Your task to perform on an android device: What is the recent news? Image 0: 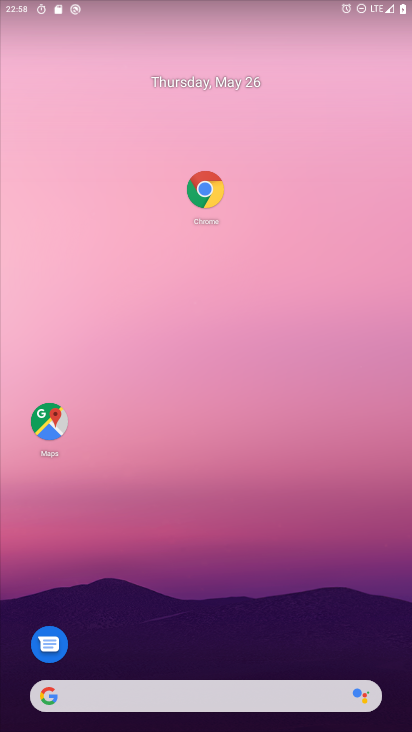
Step 0: click (368, 75)
Your task to perform on an android device: What is the recent news? Image 1: 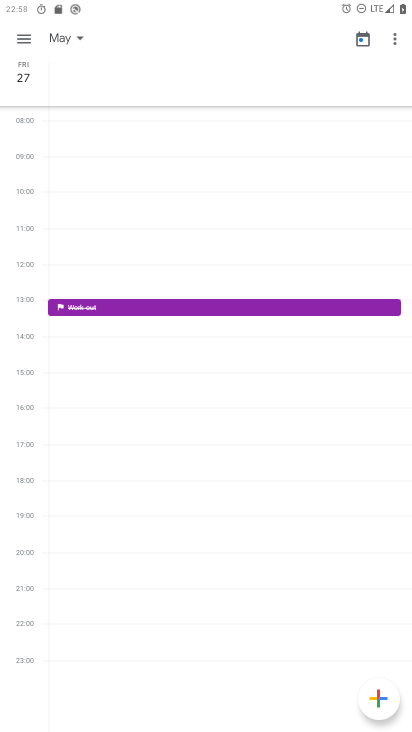
Step 1: drag from (229, 562) to (293, 173)
Your task to perform on an android device: What is the recent news? Image 2: 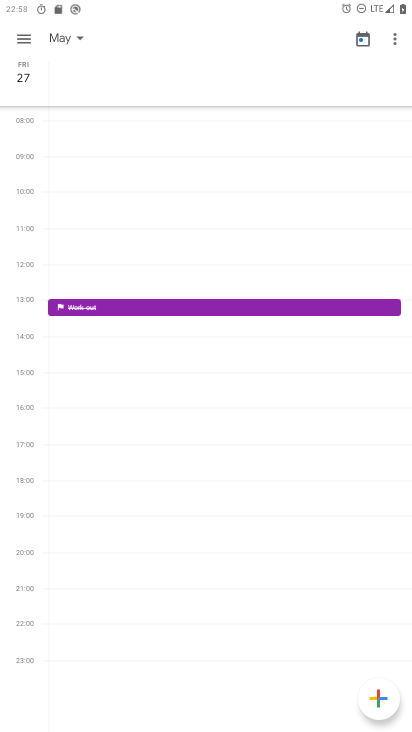
Step 2: press home button
Your task to perform on an android device: What is the recent news? Image 3: 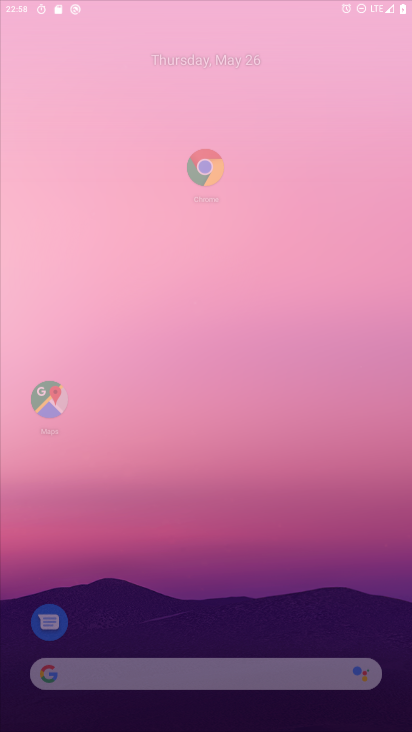
Step 3: drag from (194, 597) to (201, 121)
Your task to perform on an android device: What is the recent news? Image 4: 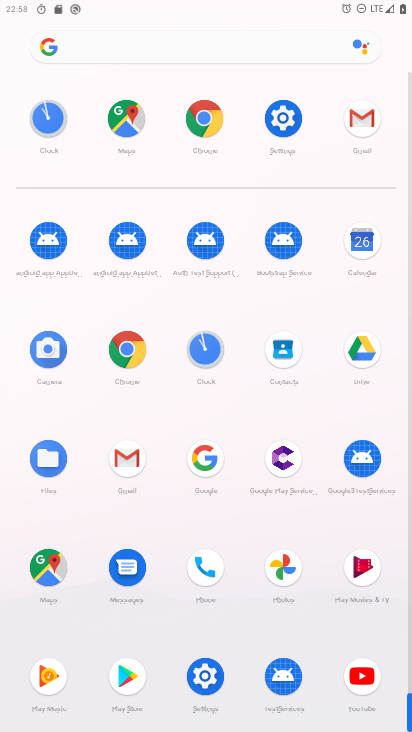
Step 4: click (170, 50)
Your task to perform on an android device: What is the recent news? Image 5: 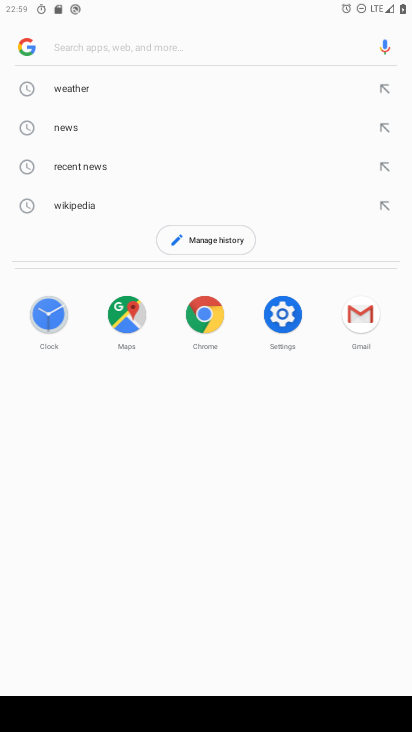
Step 5: click (81, 167)
Your task to perform on an android device: What is the recent news? Image 6: 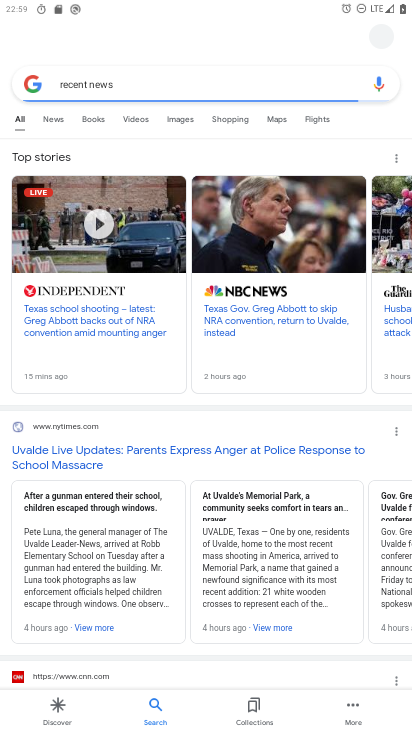
Step 6: task complete